Your task to perform on an android device: snooze an email in the gmail app Image 0: 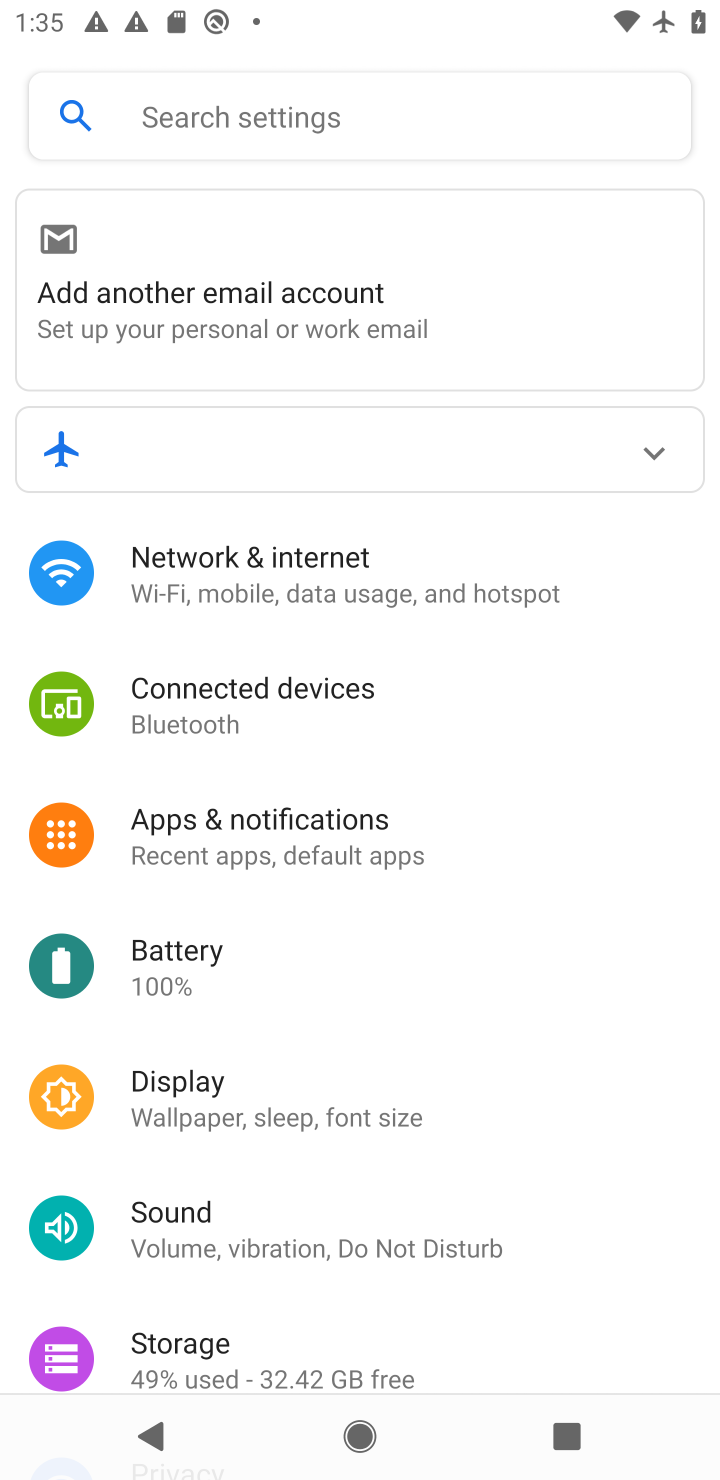
Step 0: press home button
Your task to perform on an android device: snooze an email in the gmail app Image 1: 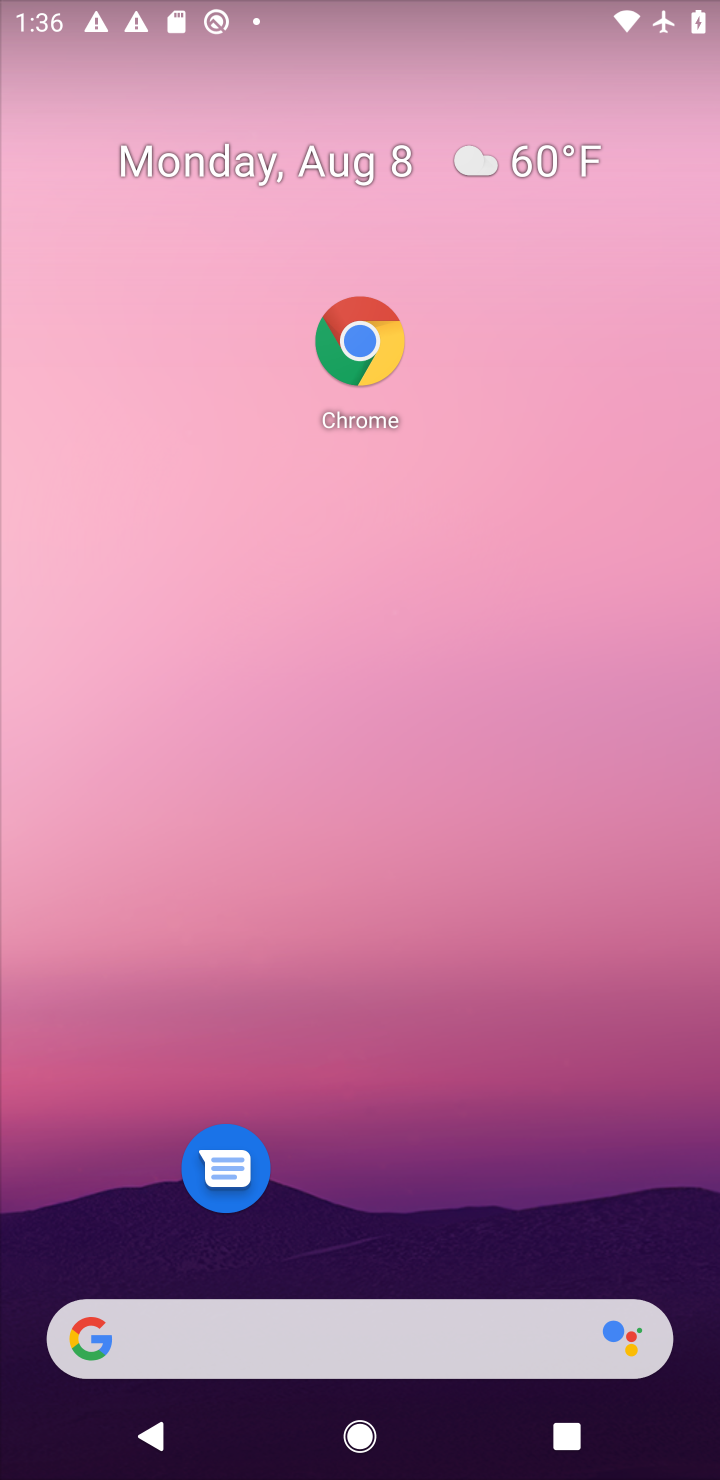
Step 1: drag from (592, 1248) to (309, 199)
Your task to perform on an android device: snooze an email in the gmail app Image 2: 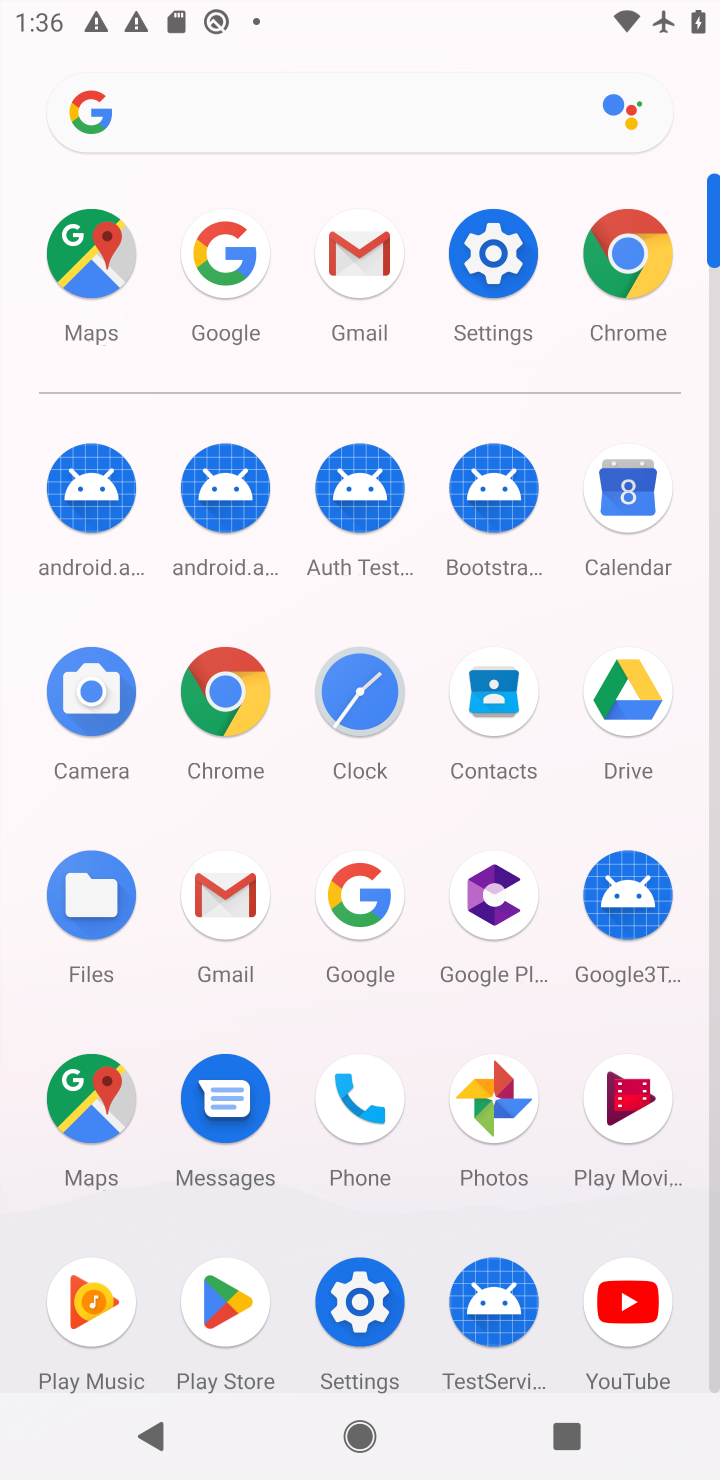
Step 2: click (323, 235)
Your task to perform on an android device: snooze an email in the gmail app Image 3: 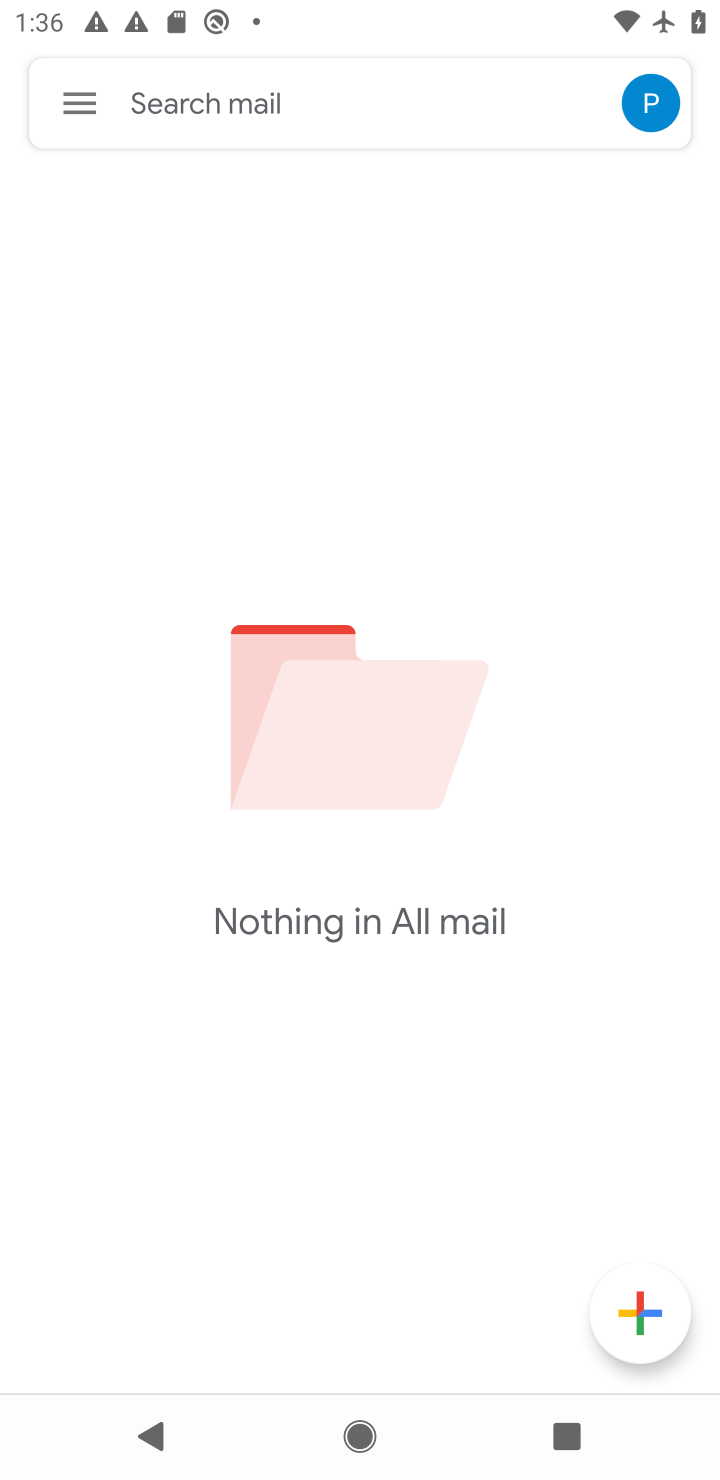
Step 3: task complete